Your task to perform on an android device: Open calendar and show me the third week of next month Image 0: 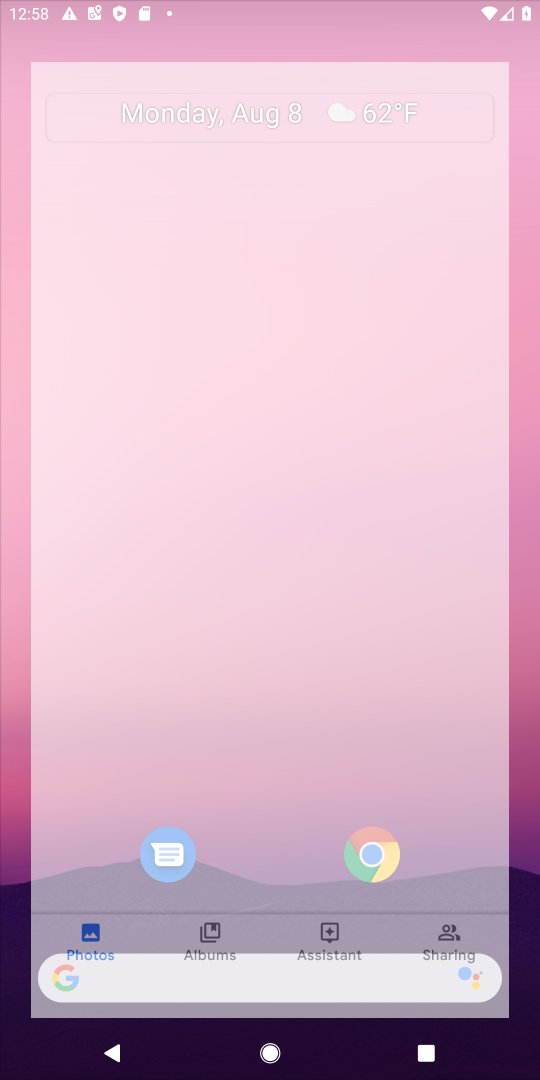
Step 0: press home button
Your task to perform on an android device: Open calendar and show me the third week of next month Image 1: 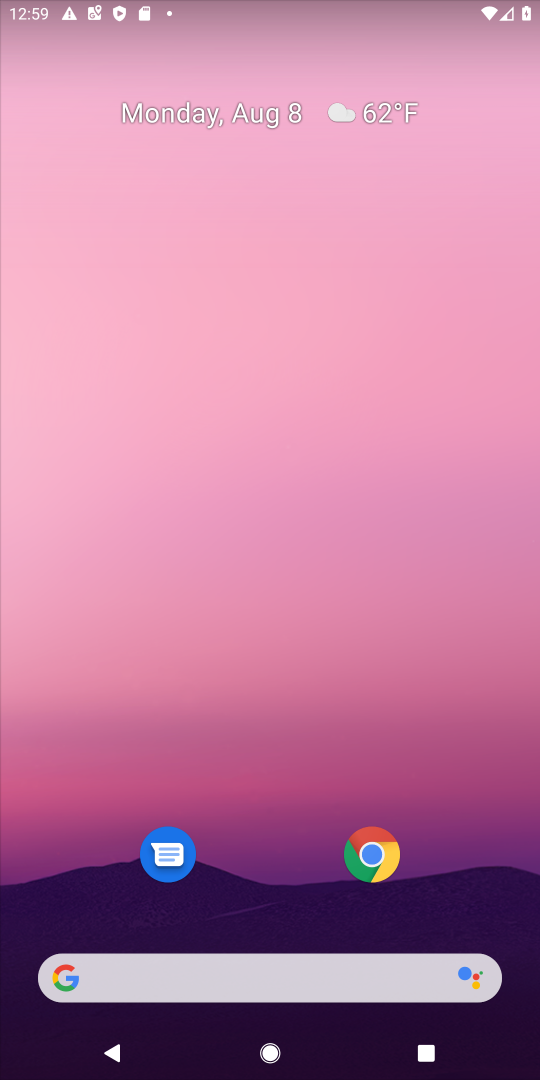
Step 1: drag from (283, 626) to (504, 529)
Your task to perform on an android device: Open calendar and show me the third week of next month Image 2: 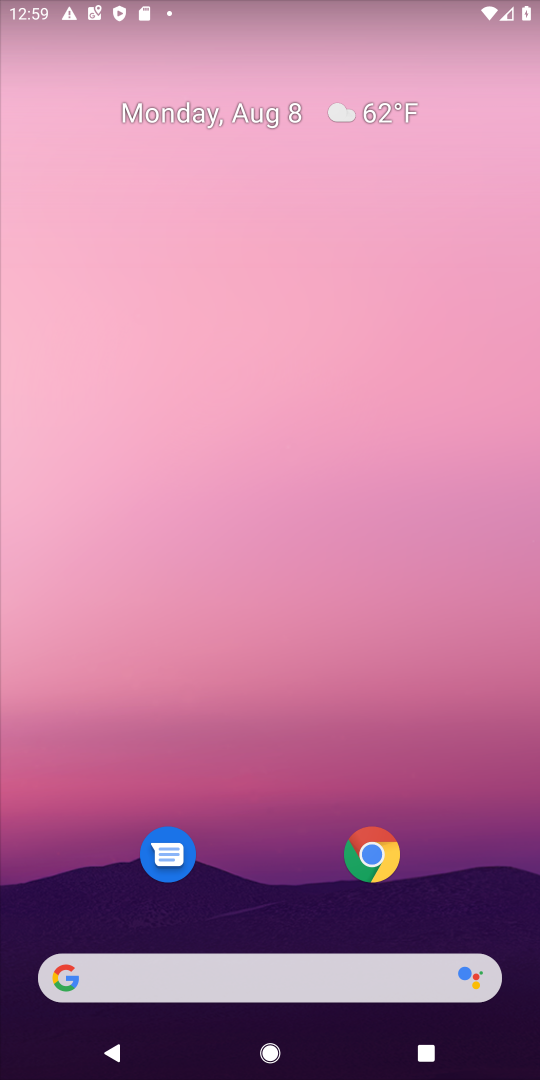
Step 2: drag from (280, 834) to (512, 0)
Your task to perform on an android device: Open calendar and show me the third week of next month Image 3: 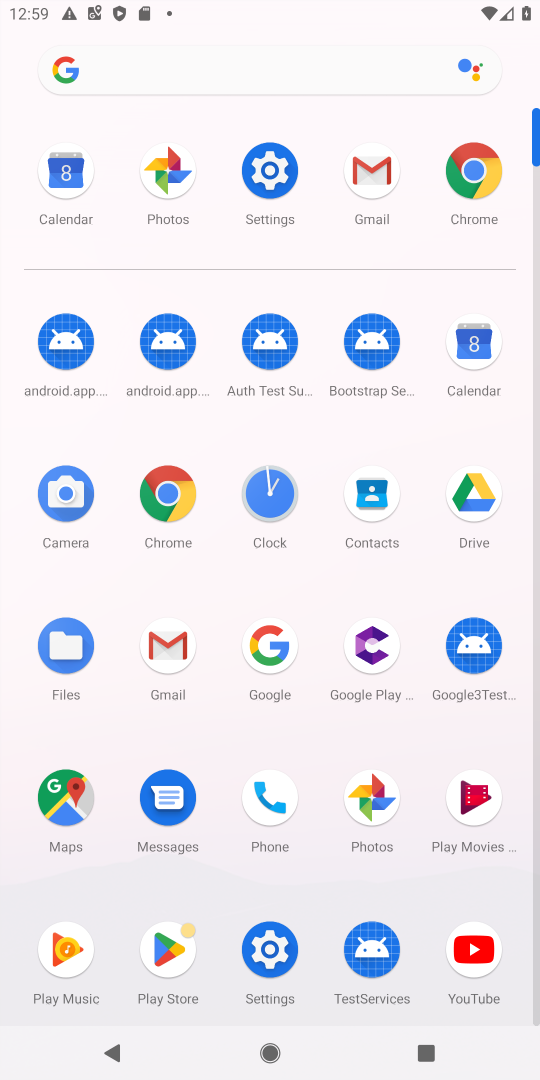
Step 3: click (481, 346)
Your task to perform on an android device: Open calendar and show me the third week of next month Image 4: 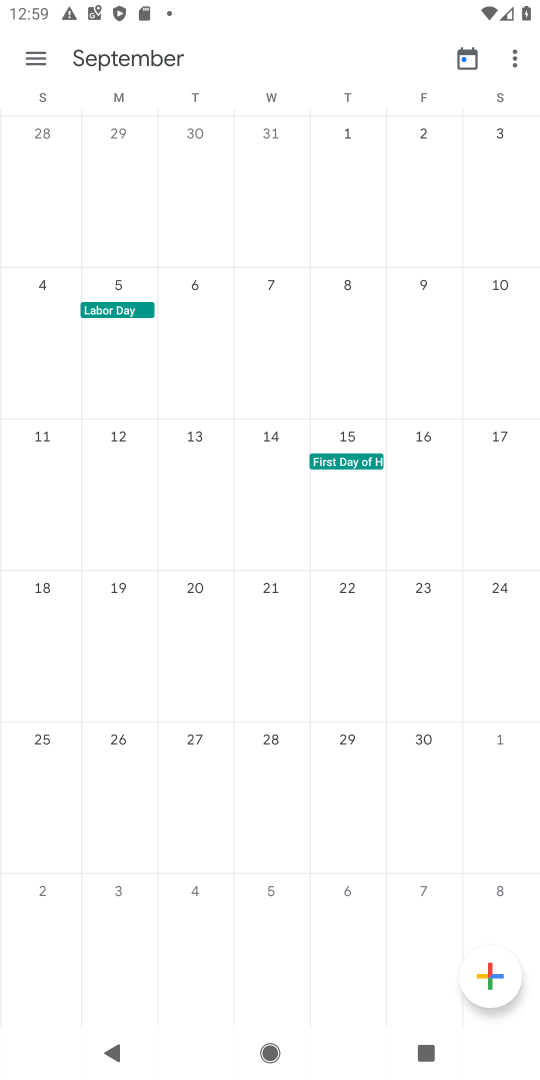
Step 4: click (41, 52)
Your task to perform on an android device: Open calendar and show me the third week of next month Image 5: 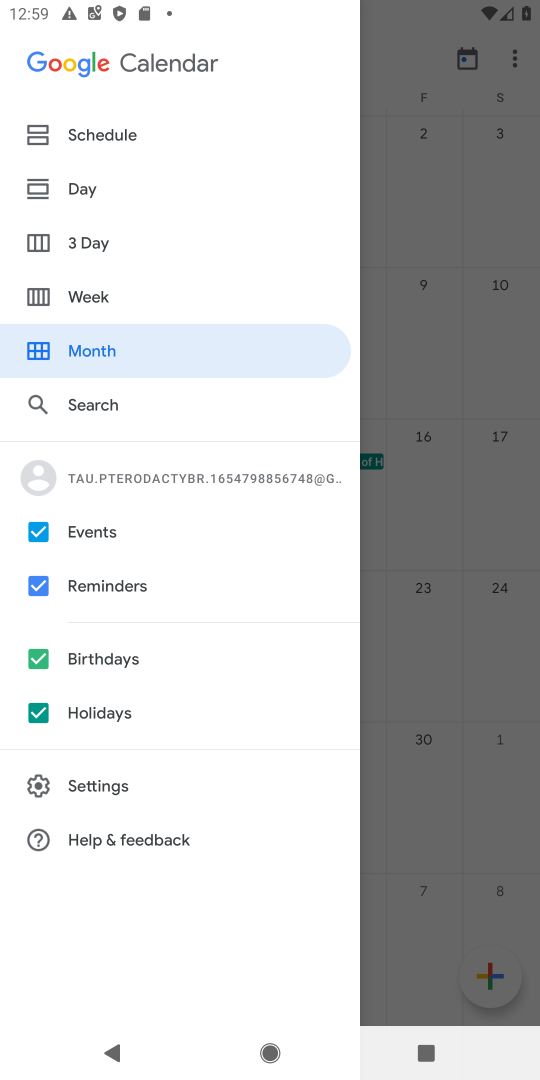
Step 5: click (112, 297)
Your task to perform on an android device: Open calendar and show me the third week of next month Image 6: 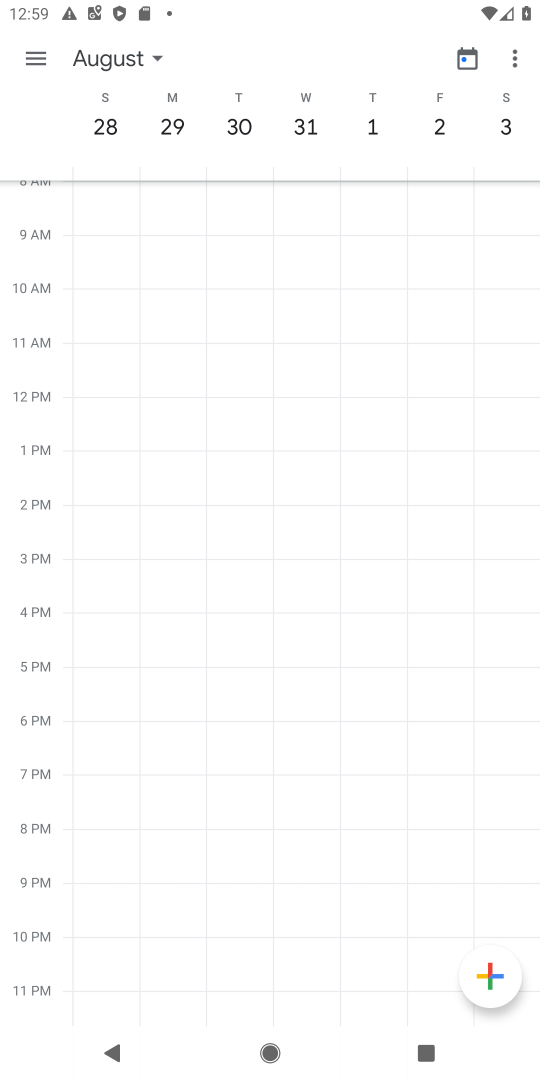
Step 6: task complete